Your task to perform on an android device: Show me recent news Image 0: 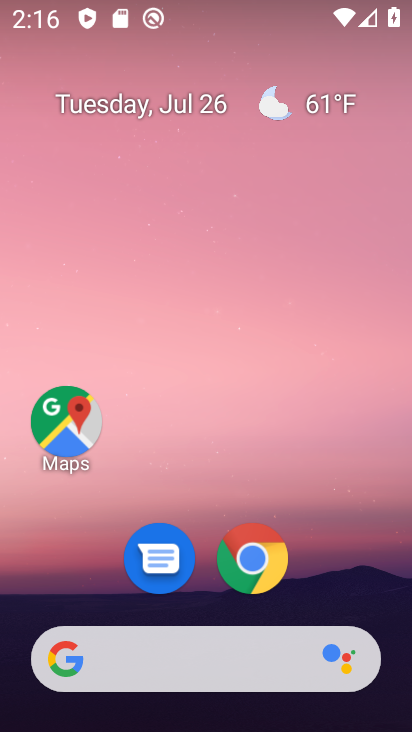
Step 0: drag from (74, 550) to (204, 67)
Your task to perform on an android device: Show me recent news Image 1: 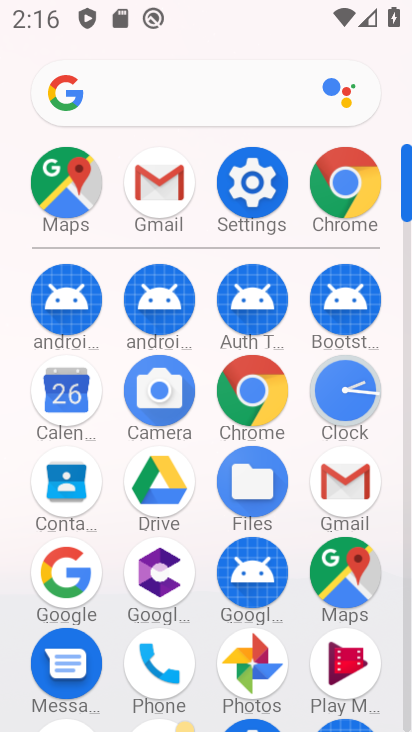
Step 1: click (179, 86)
Your task to perform on an android device: Show me recent news Image 2: 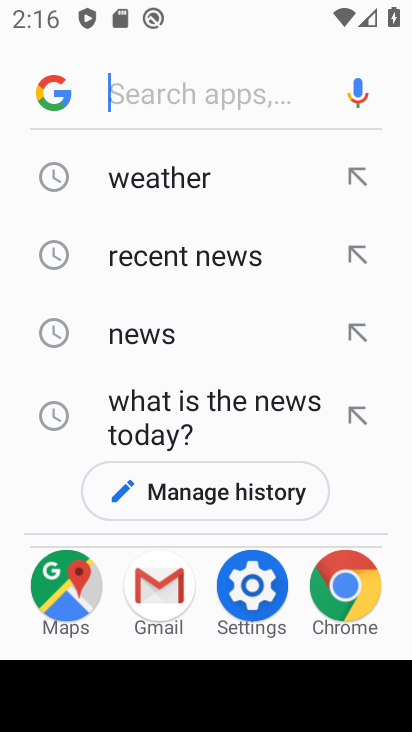
Step 2: click (176, 255)
Your task to perform on an android device: Show me recent news Image 3: 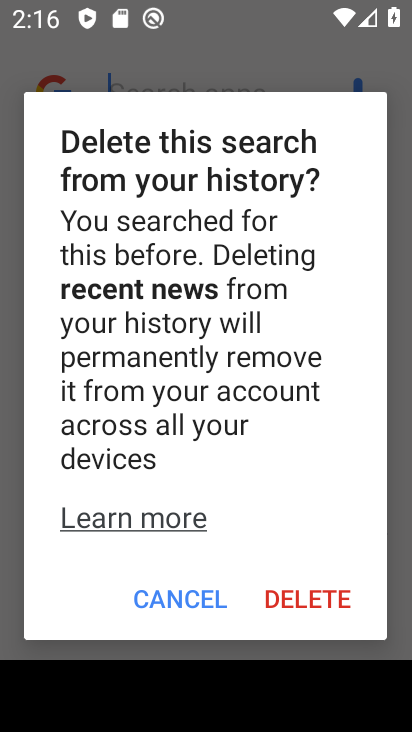
Step 3: click (155, 604)
Your task to perform on an android device: Show me recent news Image 4: 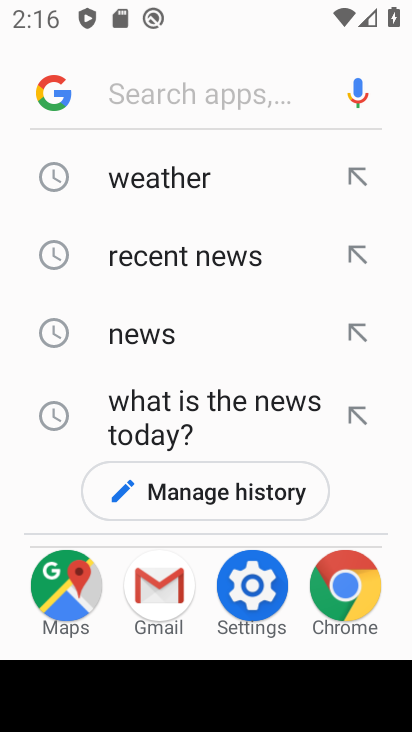
Step 4: click (144, 247)
Your task to perform on an android device: Show me recent news Image 5: 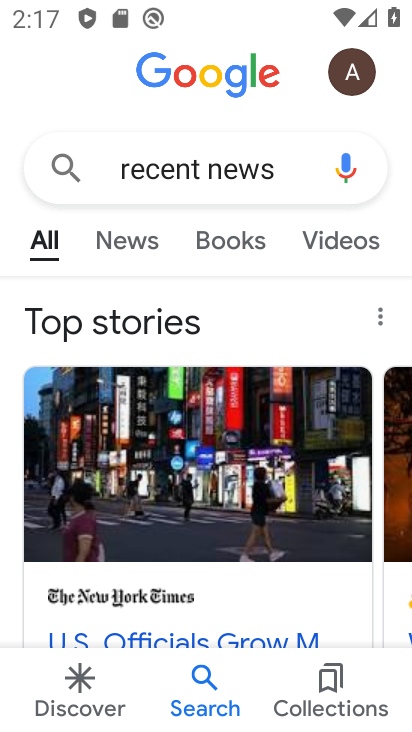
Step 5: task complete